Your task to perform on an android device: turn on wifi Image 0: 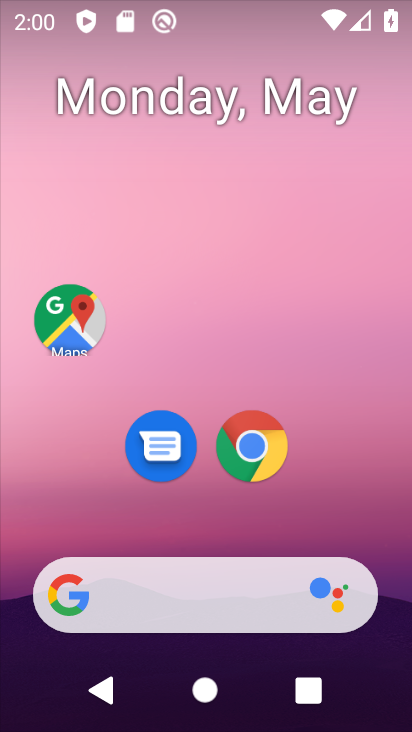
Step 0: drag from (235, 605) to (226, 17)
Your task to perform on an android device: turn on wifi Image 1: 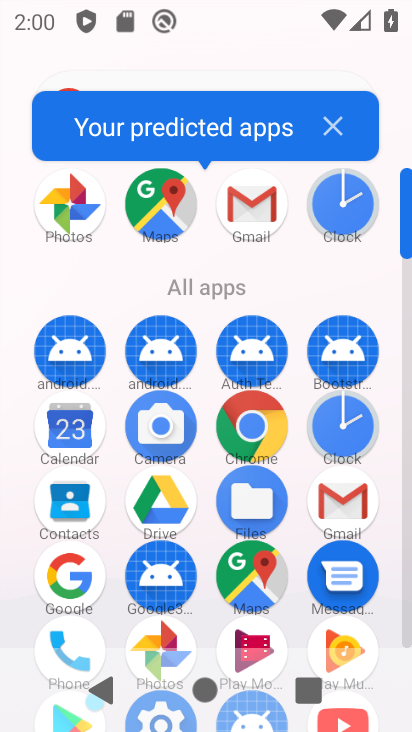
Step 1: drag from (238, 598) to (231, 186)
Your task to perform on an android device: turn on wifi Image 2: 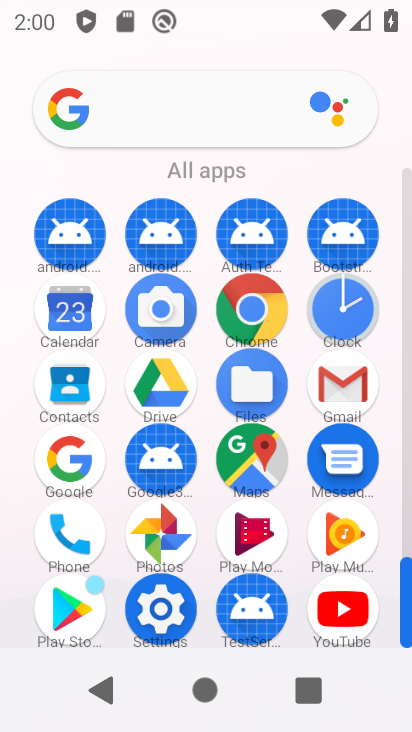
Step 2: click (174, 635)
Your task to perform on an android device: turn on wifi Image 3: 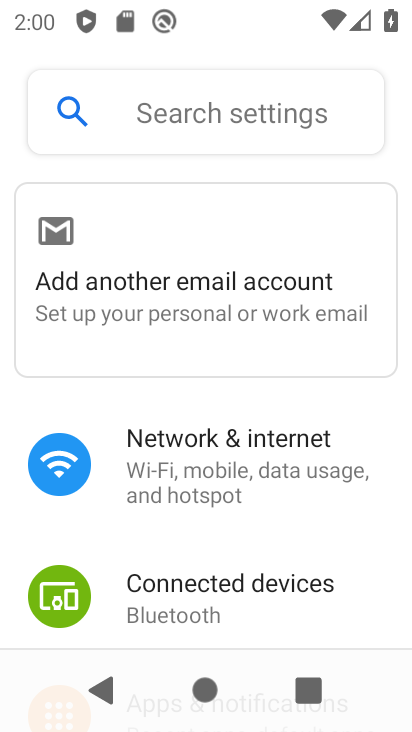
Step 3: click (226, 456)
Your task to perform on an android device: turn on wifi Image 4: 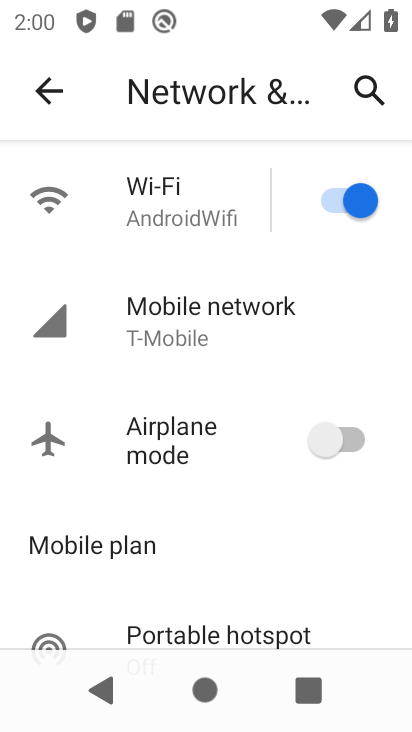
Step 4: task complete